Your task to perform on an android device: toggle notification dots Image 0: 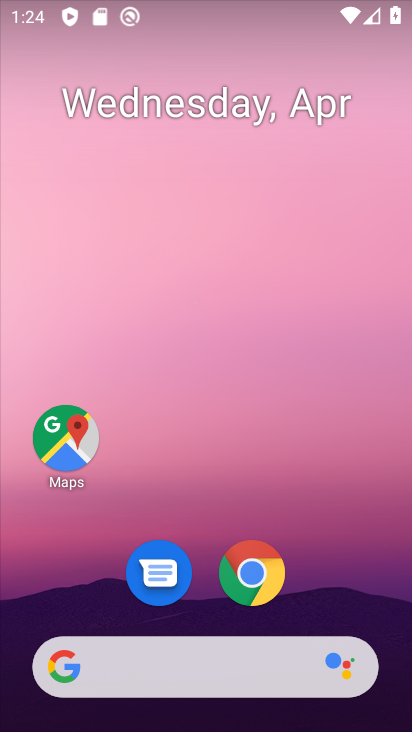
Step 0: drag from (164, 662) to (337, 70)
Your task to perform on an android device: toggle notification dots Image 1: 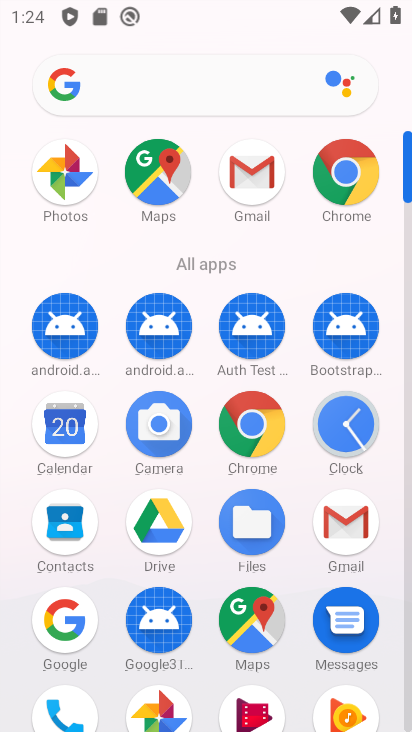
Step 1: drag from (207, 641) to (342, 225)
Your task to perform on an android device: toggle notification dots Image 2: 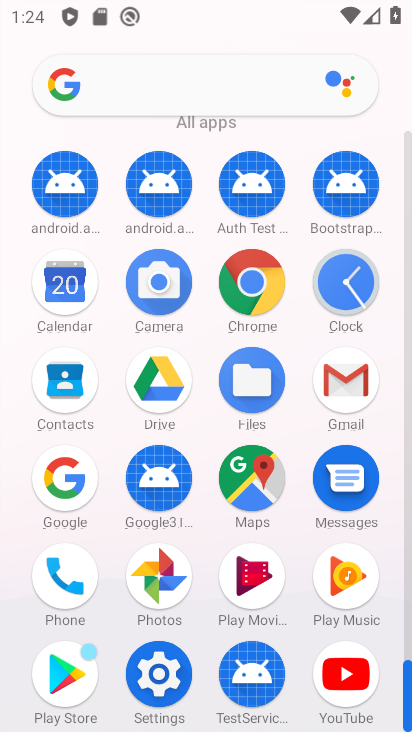
Step 2: click (161, 667)
Your task to perform on an android device: toggle notification dots Image 3: 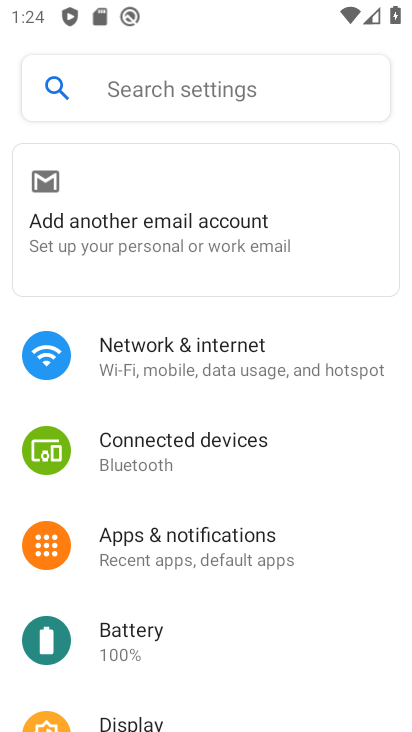
Step 3: click (216, 542)
Your task to perform on an android device: toggle notification dots Image 4: 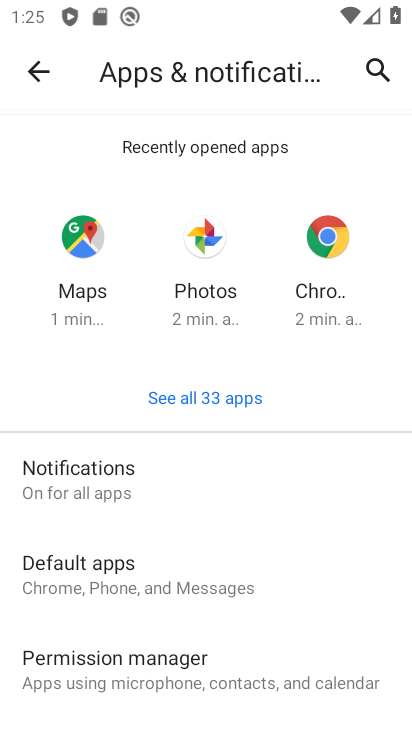
Step 4: drag from (207, 611) to (265, 484)
Your task to perform on an android device: toggle notification dots Image 5: 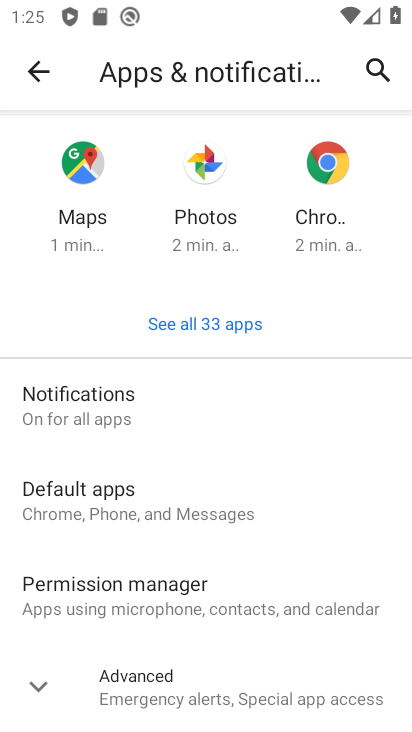
Step 5: click (131, 401)
Your task to perform on an android device: toggle notification dots Image 6: 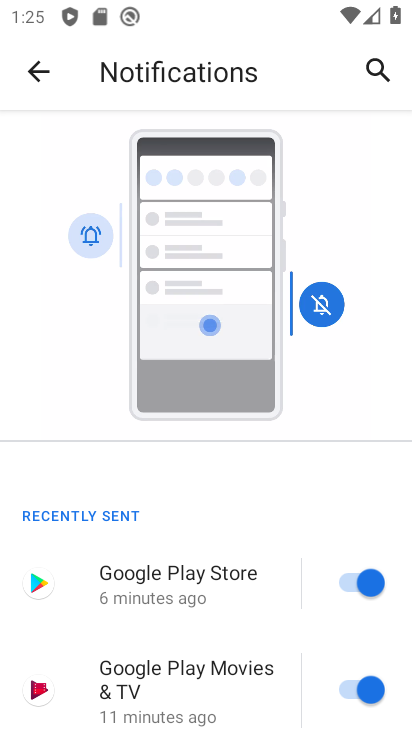
Step 6: drag from (218, 638) to (411, 165)
Your task to perform on an android device: toggle notification dots Image 7: 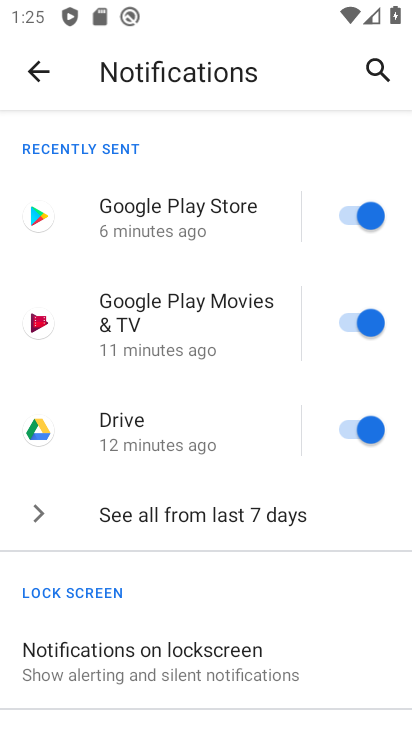
Step 7: drag from (285, 536) to (410, 120)
Your task to perform on an android device: toggle notification dots Image 8: 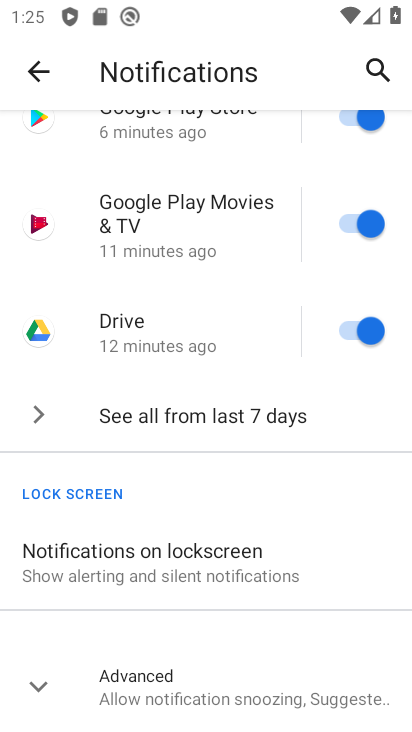
Step 8: click (99, 674)
Your task to perform on an android device: toggle notification dots Image 9: 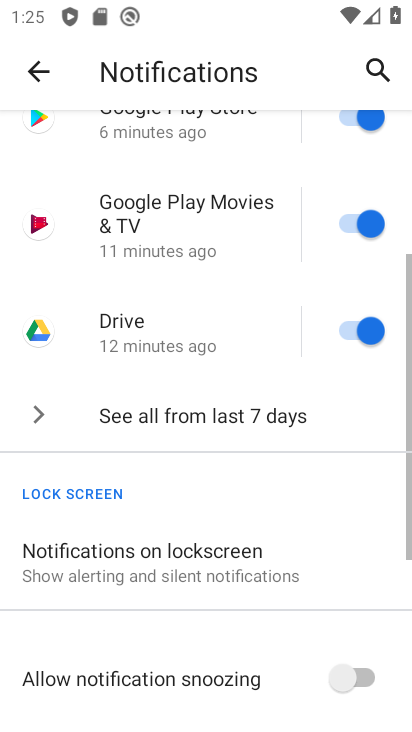
Step 9: drag from (147, 642) to (259, 225)
Your task to perform on an android device: toggle notification dots Image 10: 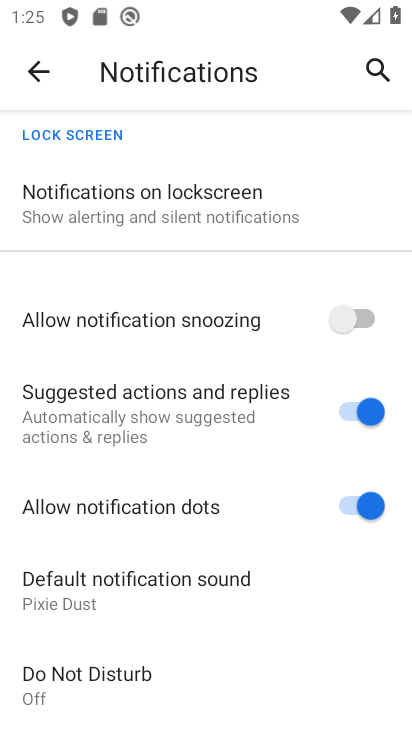
Step 10: click (351, 509)
Your task to perform on an android device: toggle notification dots Image 11: 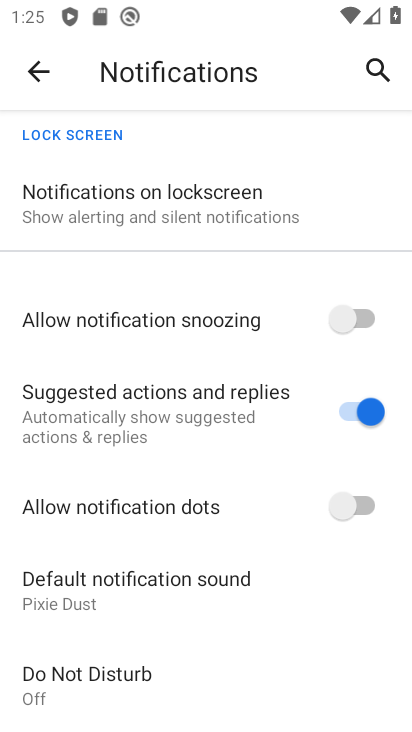
Step 11: task complete